Your task to perform on an android device: delete the emails in spam in the gmail app Image 0: 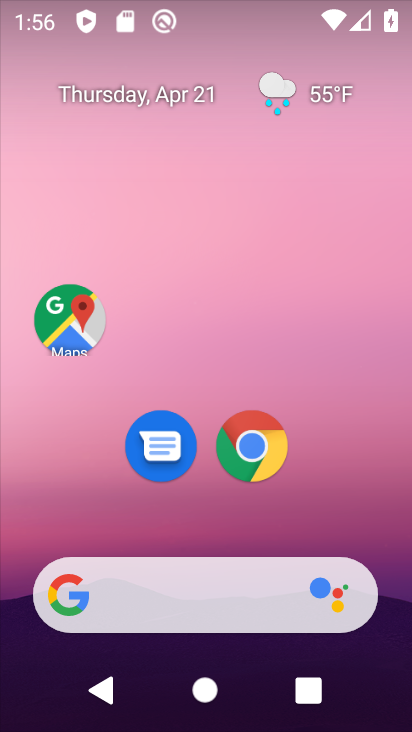
Step 0: drag from (208, 722) to (184, 139)
Your task to perform on an android device: delete the emails in spam in the gmail app Image 1: 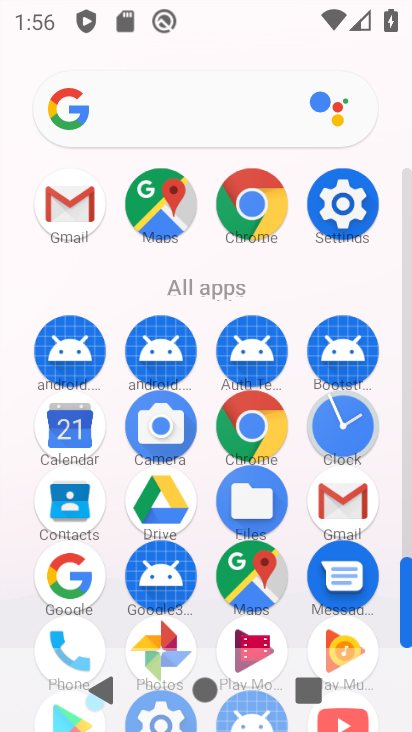
Step 1: click (72, 198)
Your task to perform on an android device: delete the emails in spam in the gmail app Image 2: 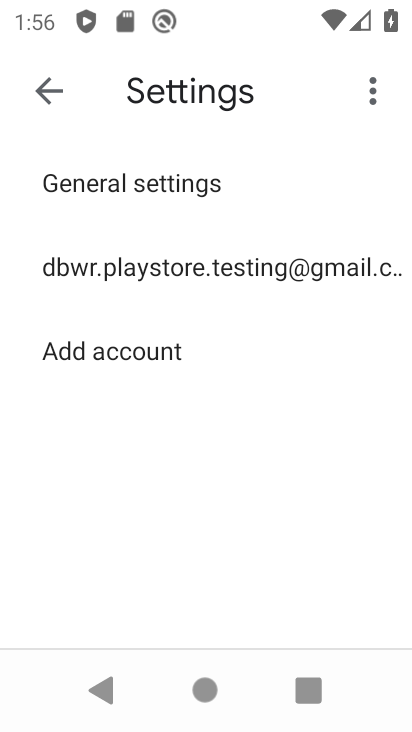
Step 2: click (183, 266)
Your task to perform on an android device: delete the emails in spam in the gmail app Image 3: 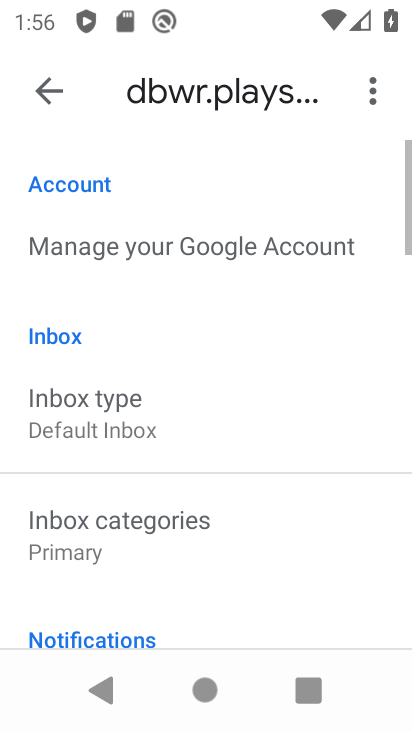
Step 3: click (40, 93)
Your task to perform on an android device: delete the emails in spam in the gmail app Image 4: 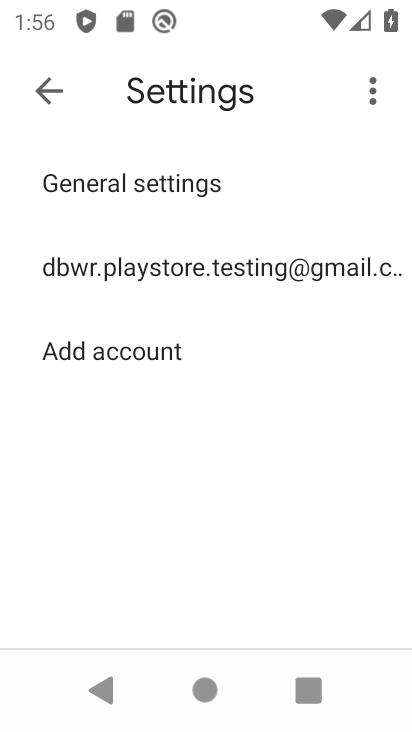
Step 4: click (44, 87)
Your task to perform on an android device: delete the emails in spam in the gmail app Image 5: 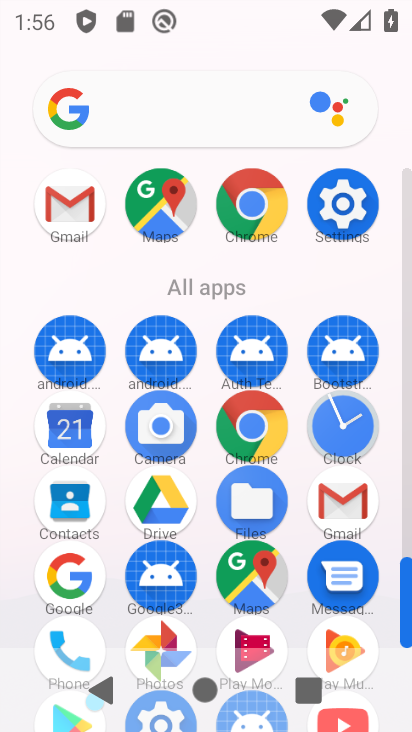
Step 5: click (78, 194)
Your task to perform on an android device: delete the emails in spam in the gmail app Image 6: 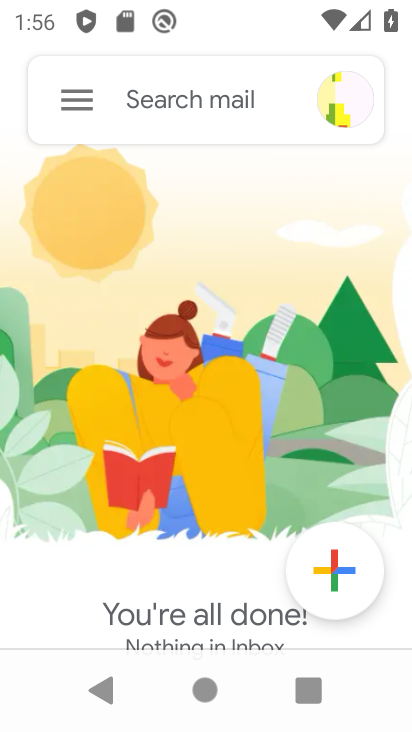
Step 6: click (71, 98)
Your task to perform on an android device: delete the emails in spam in the gmail app Image 7: 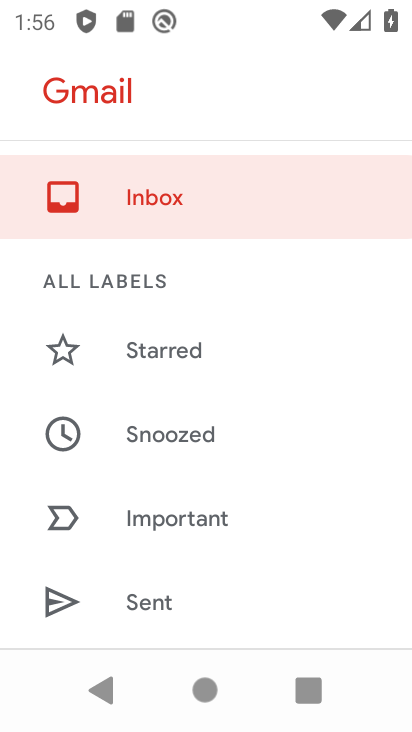
Step 7: drag from (195, 587) to (183, 282)
Your task to perform on an android device: delete the emails in spam in the gmail app Image 8: 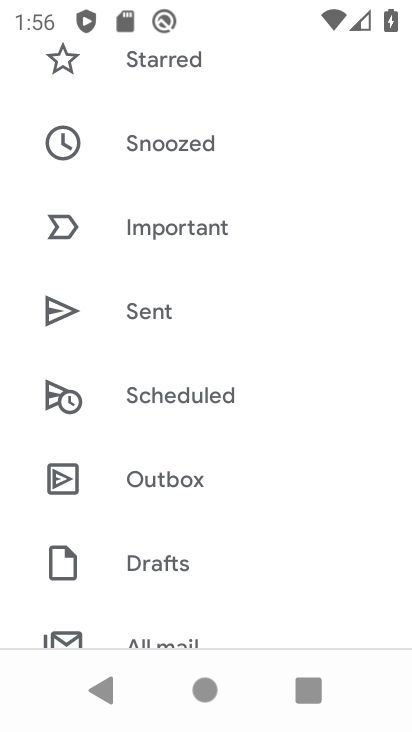
Step 8: drag from (186, 611) to (162, 343)
Your task to perform on an android device: delete the emails in spam in the gmail app Image 9: 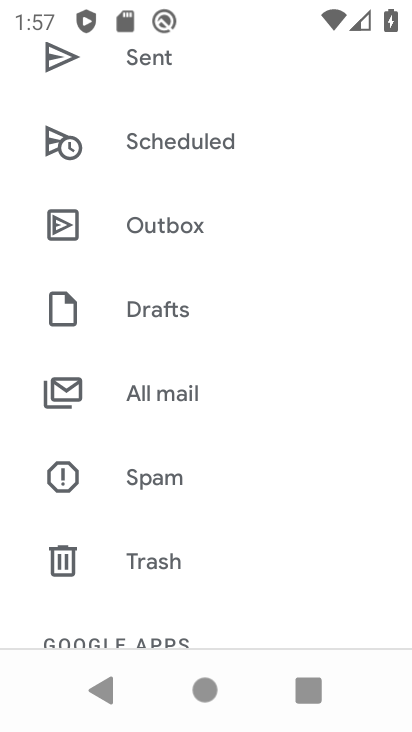
Step 9: click (152, 473)
Your task to perform on an android device: delete the emails in spam in the gmail app Image 10: 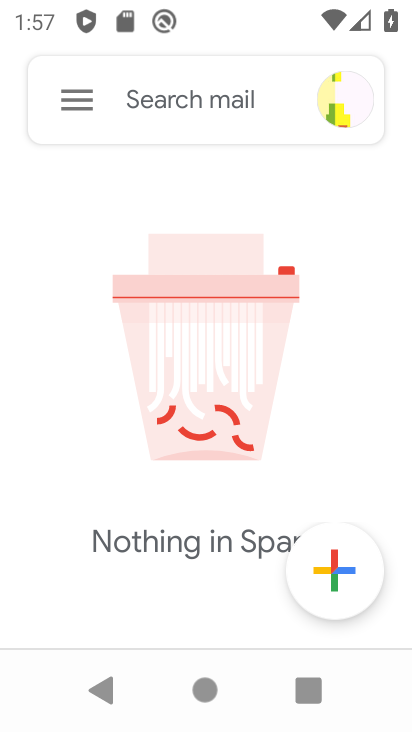
Step 10: task complete